Your task to perform on an android device: find photos in the google photos app Image 0: 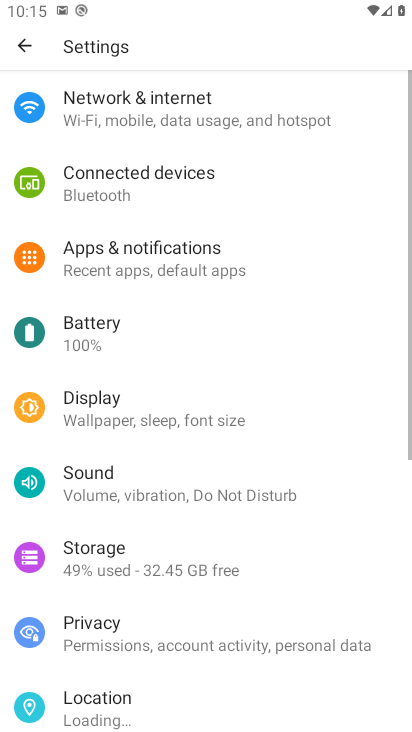
Step 0: press home button
Your task to perform on an android device: find photos in the google photos app Image 1: 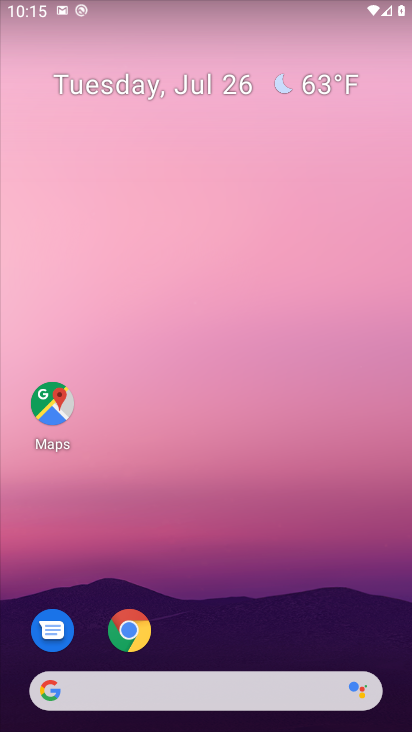
Step 1: drag from (219, 647) to (220, 38)
Your task to perform on an android device: find photos in the google photos app Image 2: 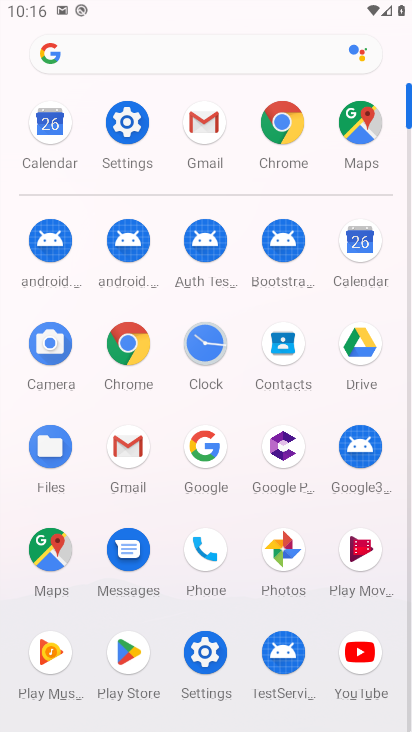
Step 2: click (281, 542)
Your task to perform on an android device: find photos in the google photos app Image 3: 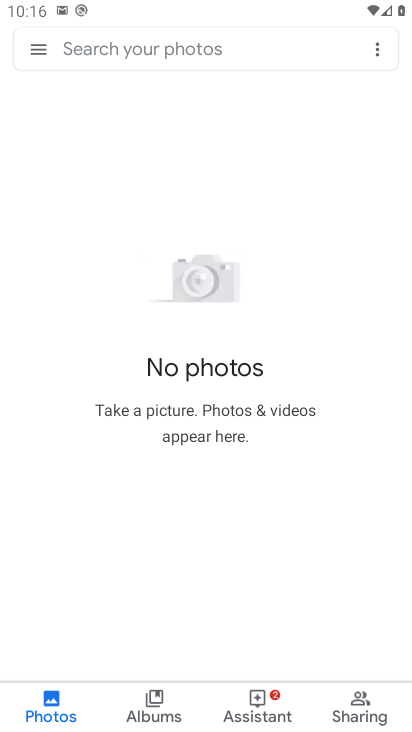
Step 3: task complete